Your task to perform on an android device: open a bookmark in the chrome app Image 0: 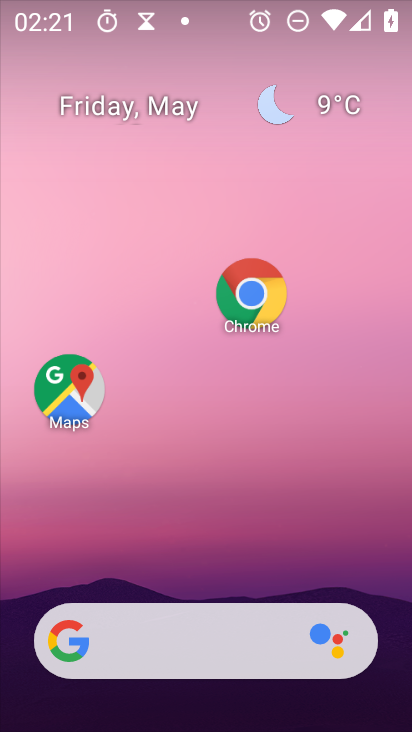
Step 0: click (259, 303)
Your task to perform on an android device: open a bookmark in the chrome app Image 1: 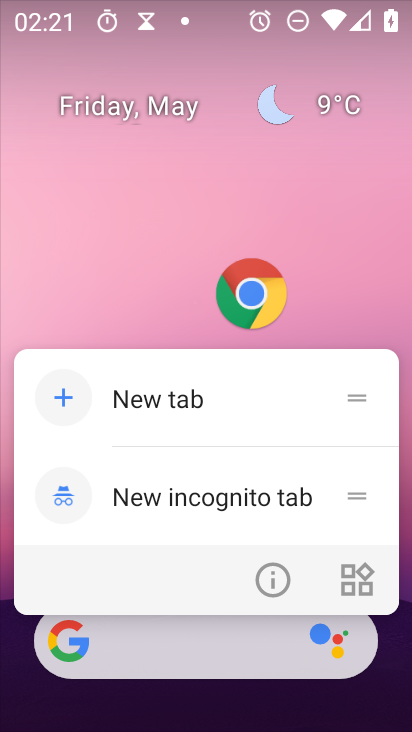
Step 1: click (259, 303)
Your task to perform on an android device: open a bookmark in the chrome app Image 2: 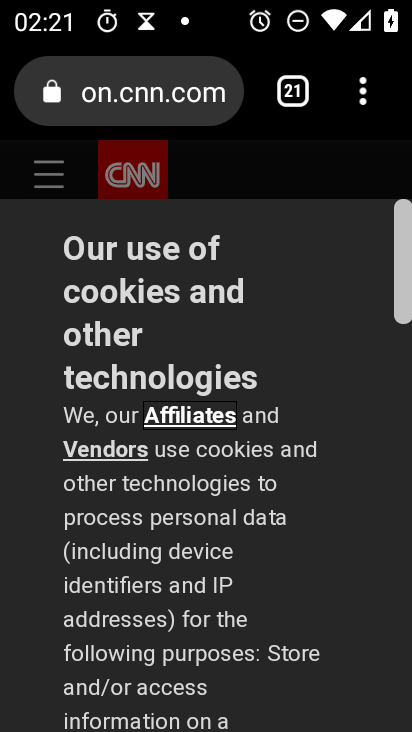
Step 2: task complete